Your task to perform on an android device: Go to notification settings Image 0: 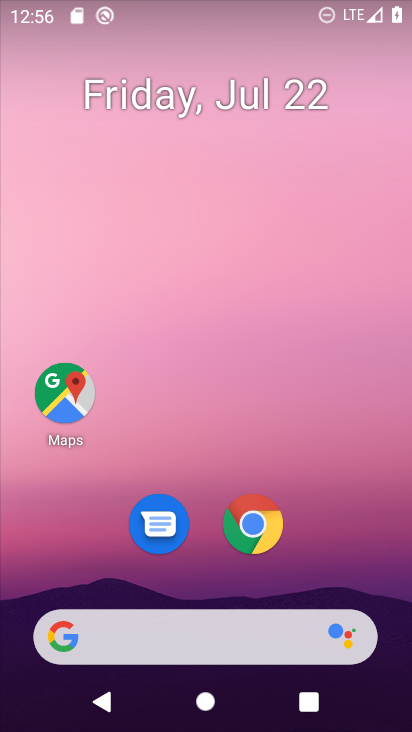
Step 0: drag from (338, 555) to (315, 75)
Your task to perform on an android device: Go to notification settings Image 1: 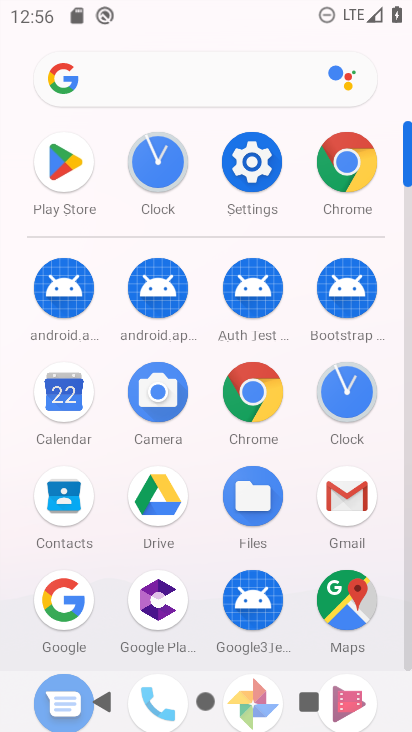
Step 1: click (256, 161)
Your task to perform on an android device: Go to notification settings Image 2: 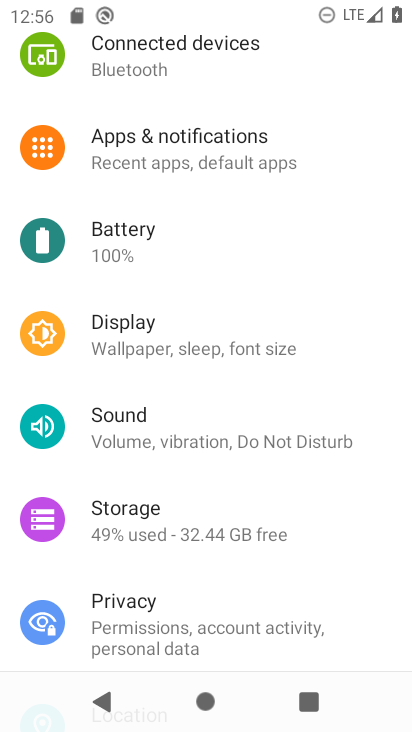
Step 2: click (232, 157)
Your task to perform on an android device: Go to notification settings Image 3: 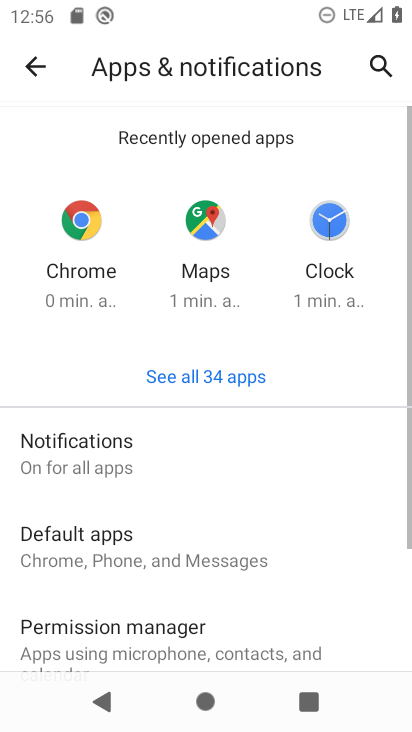
Step 3: click (93, 455)
Your task to perform on an android device: Go to notification settings Image 4: 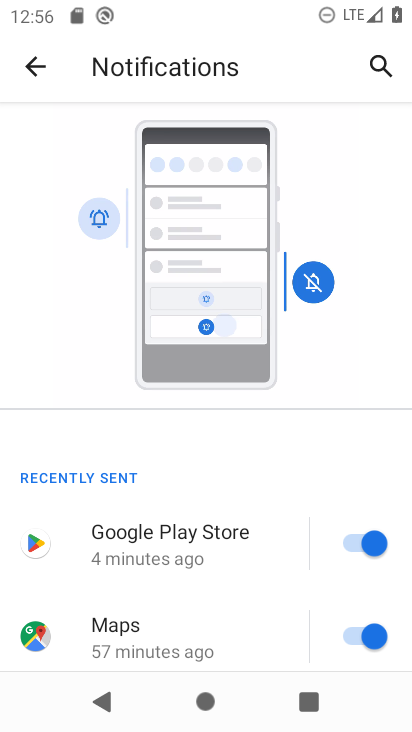
Step 4: task complete